Your task to perform on an android device: Open Google Chrome and click the shortcut for Amazon.com Image 0: 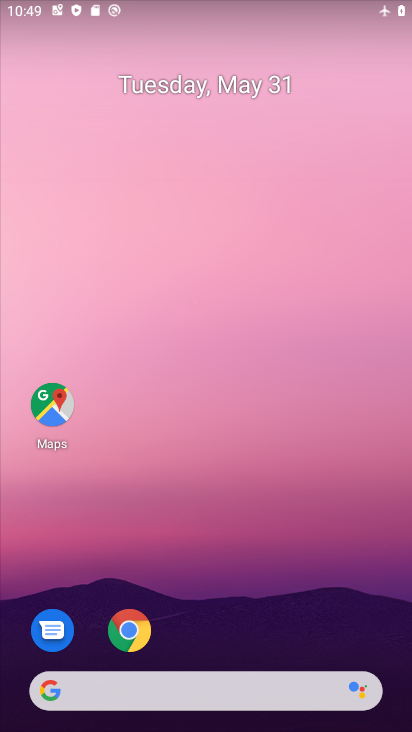
Step 0: drag from (250, 625) to (255, 191)
Your task to perform on an android device: Open Google Chrome and click the shortcut for Amazon.com Image 1: 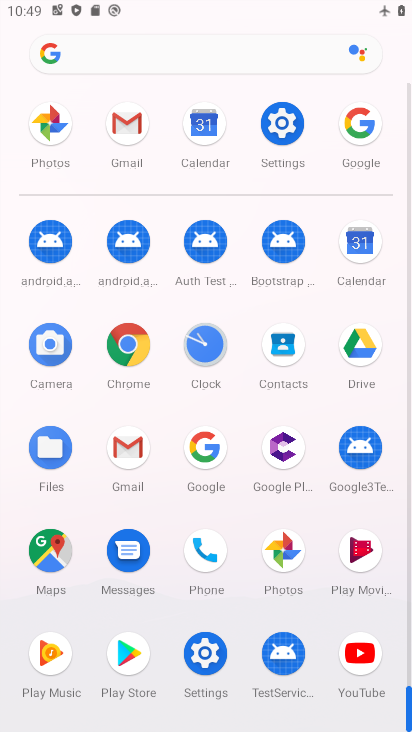
Step 1: click (136, 368)
Your task to perform on an android device: Open Google Chrome and click the shortcut for Amazon.com Image 2: 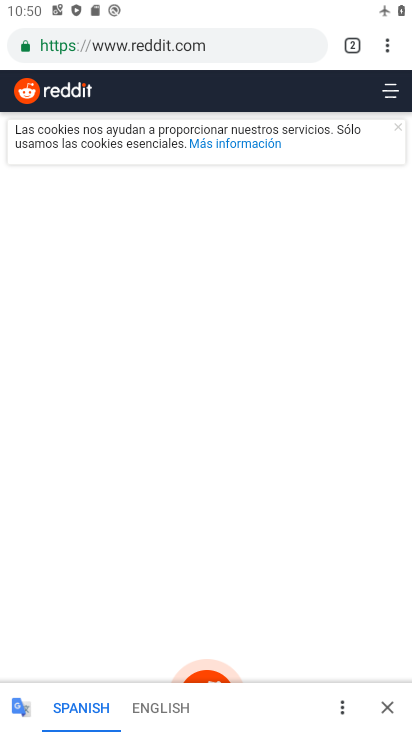
Step 2: click (220, 56)
Your task to perform on an android device: Open Google Chrome and click the shortcut for Amazon.com Image 3: 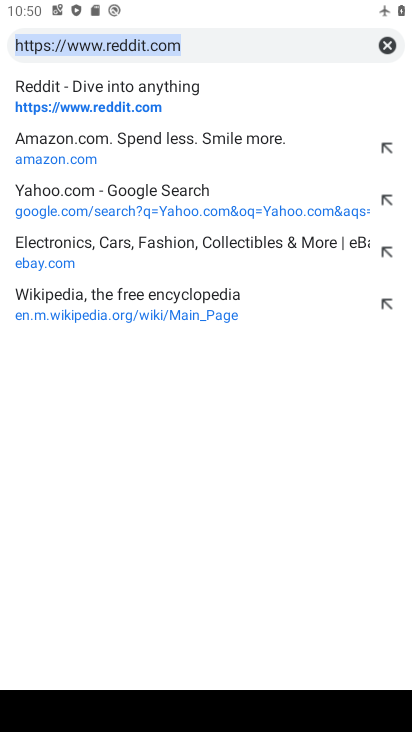
Step 3: click (167, 158)
Your task to perform on an android device: Open Google Chrome and click the shortcut for Amazon.com Image 4: 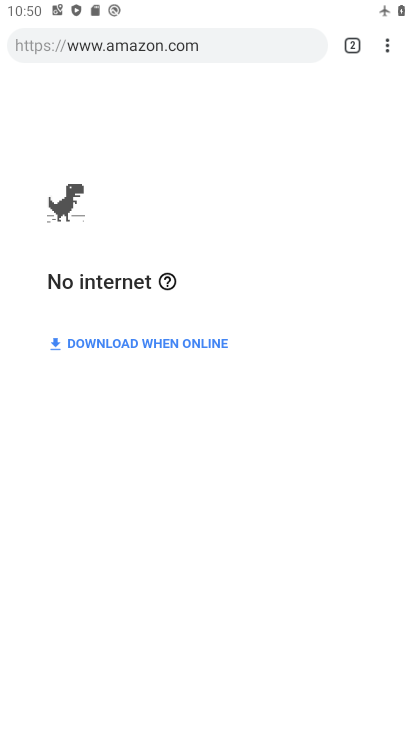
Step 4: task complete